Your task to perform on an android device: find snoozed emails in the gmail app Image 0: 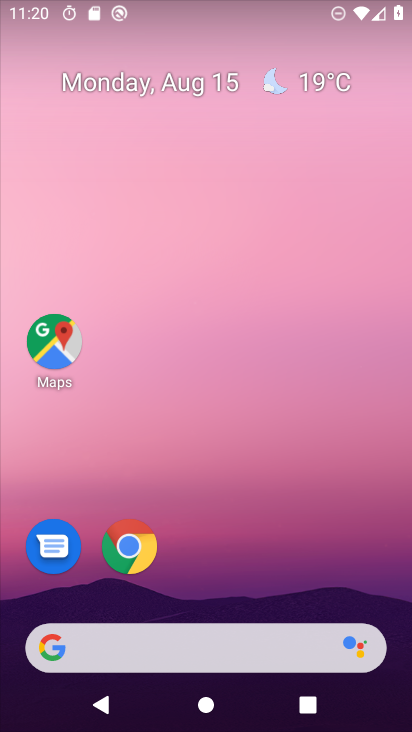
Step 0: drag from (209, 619) to (216, 56)
Your task to perform on an android device: find snoozed emails in the gmail app Image 1: 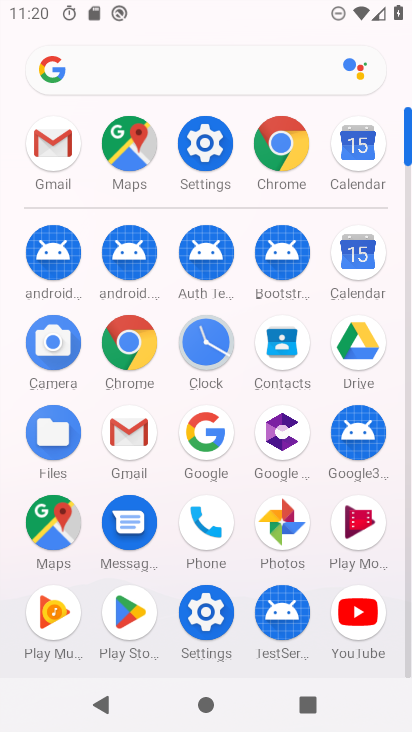
Step 1: click (125, 434)
Your task to perform on an android device: find snoozed emails in the gmail app Image 2: 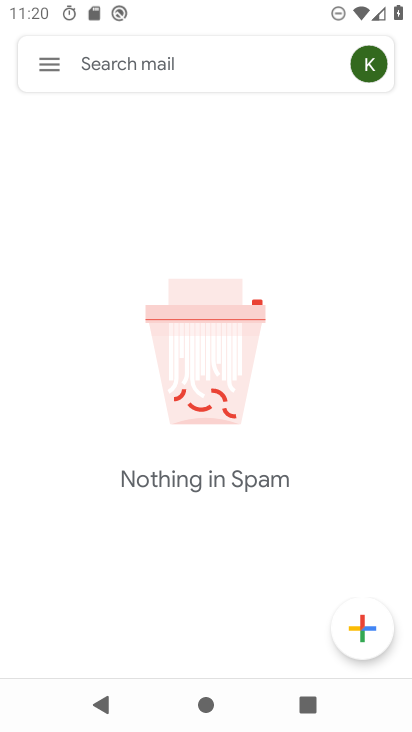
Step 2: click (52, 60)
Your task to perform on an android device: find snoozed emails in the gmail app Image 3: 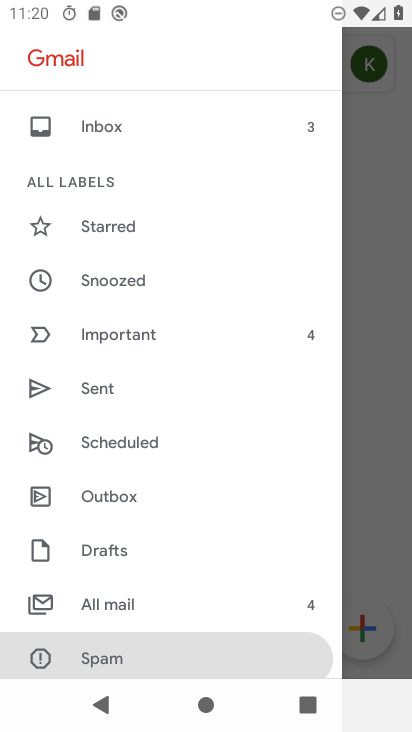
Step 3: click (109, 280)
Your task to perform on an android device: find snoozed emails in the gmail app Image 4: 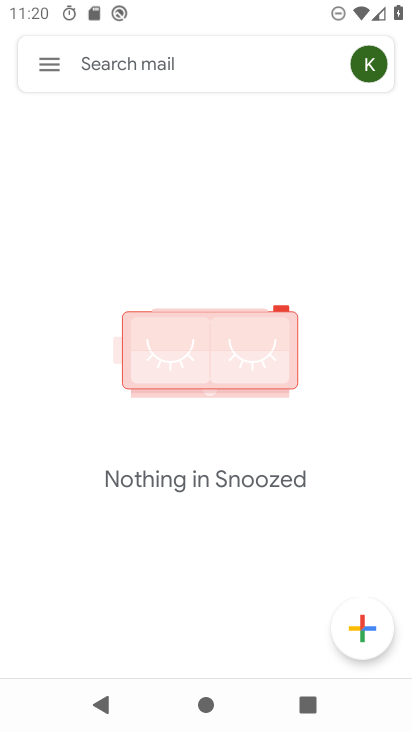
Step 4: task complete